Your task to perform on an android device: Search for Mexican restaurants on Maps Image 0: 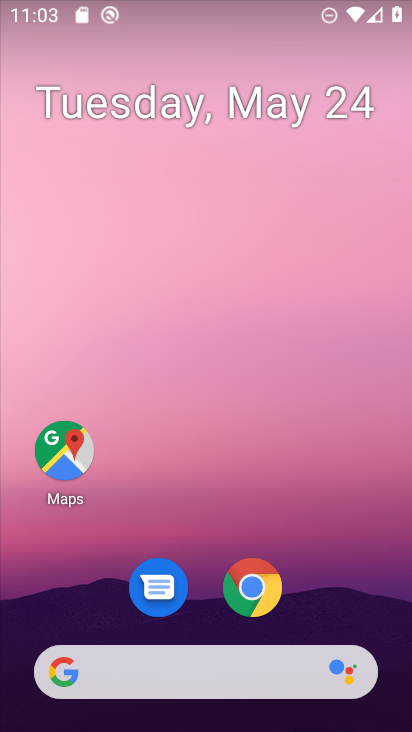
Step 0: press home button
Your task to perform on an android device: Search for Mexican restaurants on Maps Image 1: 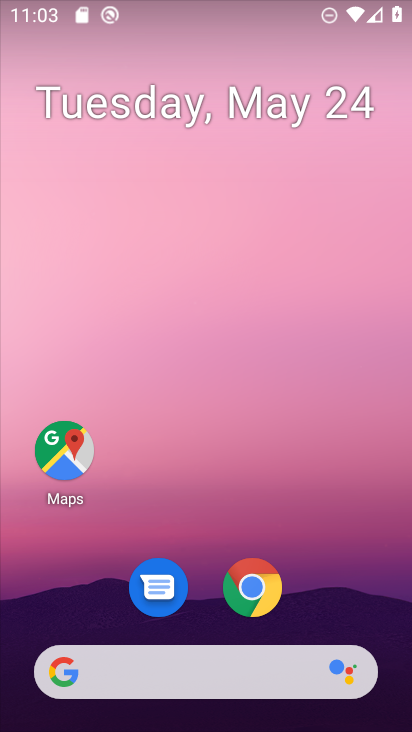
Step 1: drag from (354, 585) to (343, 0)
Your task to perform on an android device: Search for Mexican restaurants on Maps Image 2: 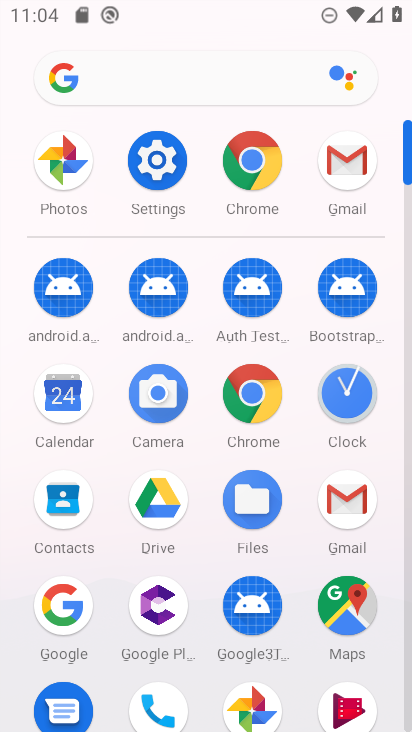
Step 2: click (348, 613)
Your task to perform on an android device: Search for Mexican restaurants on Maps Image 3: 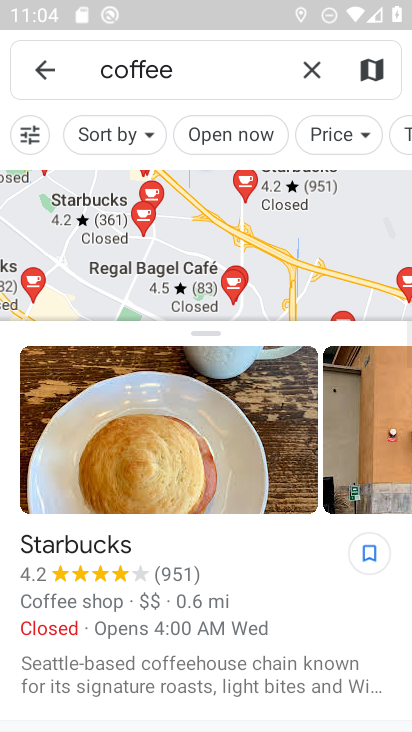
Step 3: click (318, 61)
Your task to perform on an android device: Search for Mexican restaurants on Maps Image 4: 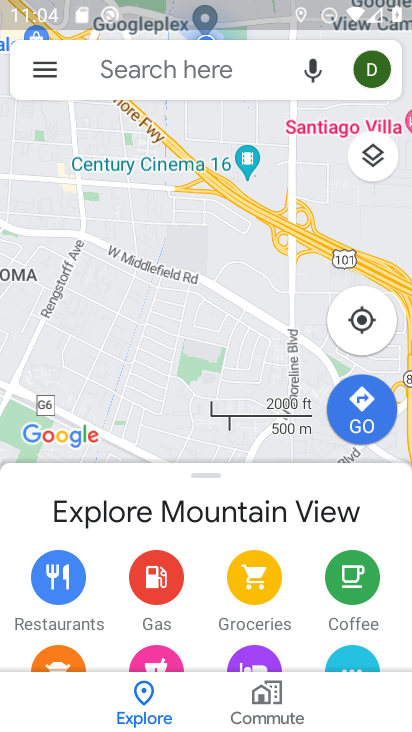
Step 4: click (177, 61)
Your task to perform on an android device: Search for Mexican restaurants on Maps Image 5: 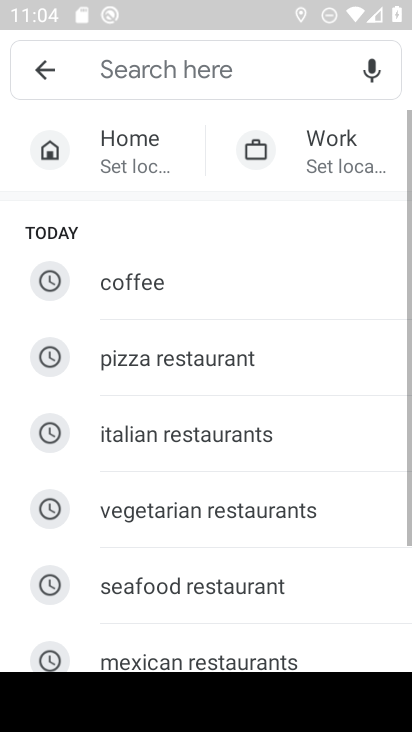
Step 5: click (177, 63)
Your task to perform on an android device: Search for Mexican restaurants on Maps Image 6: 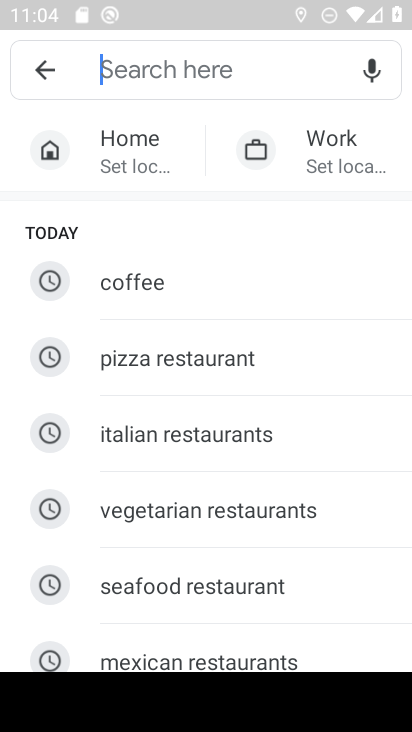
Step 6: type "Mexican restaurants "
Your task to perform on an android device: Search for Mexican restaurants on Maps Image 7: 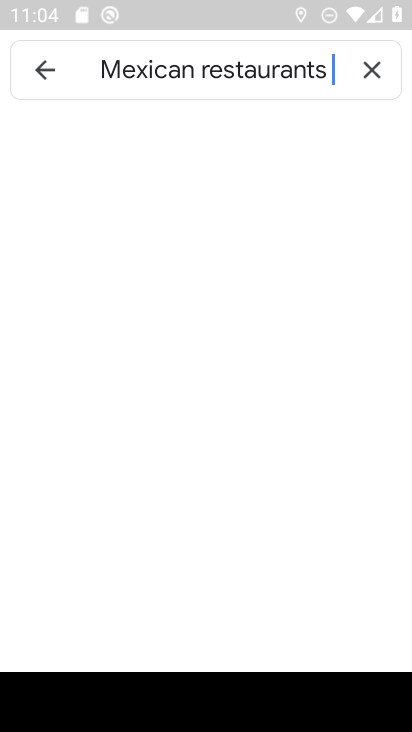
Step 7: type ""
Your task to perform on an android device: Search for Mexican restaurants on Maps Image 8: 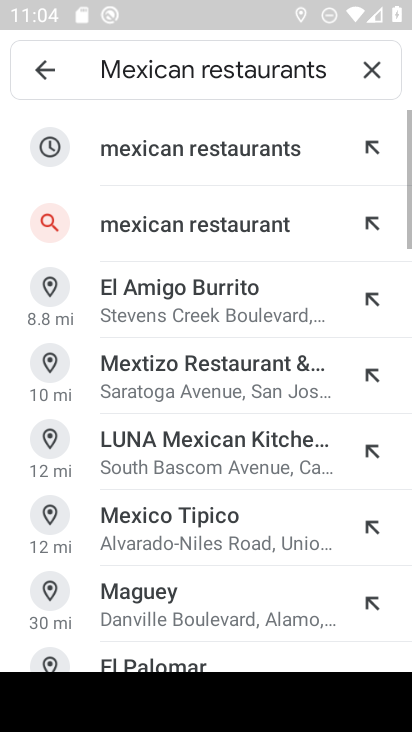
Step 8: click (134, 137)
Your task to perform on an android device: Search for Mexican restaurants on Maps Image 9: 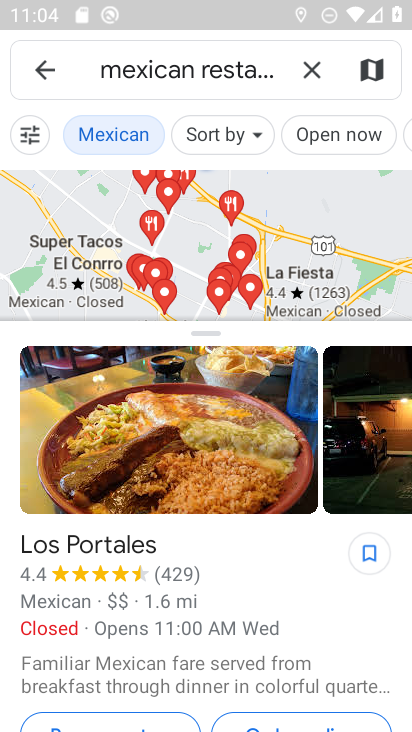
Step 9: task complete